Your task to perform on an android device: turn on bluetooth scan Image 0: 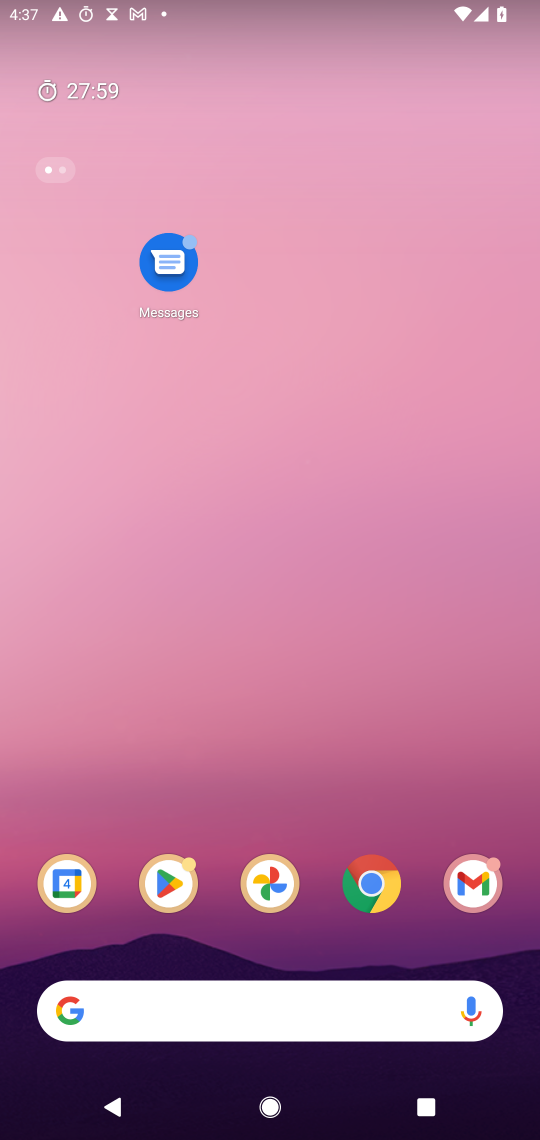
Step 0: drag from (317, 953) to (270, 84)
Your task to perform on an android device: turn on bluetooth scan Image 1: 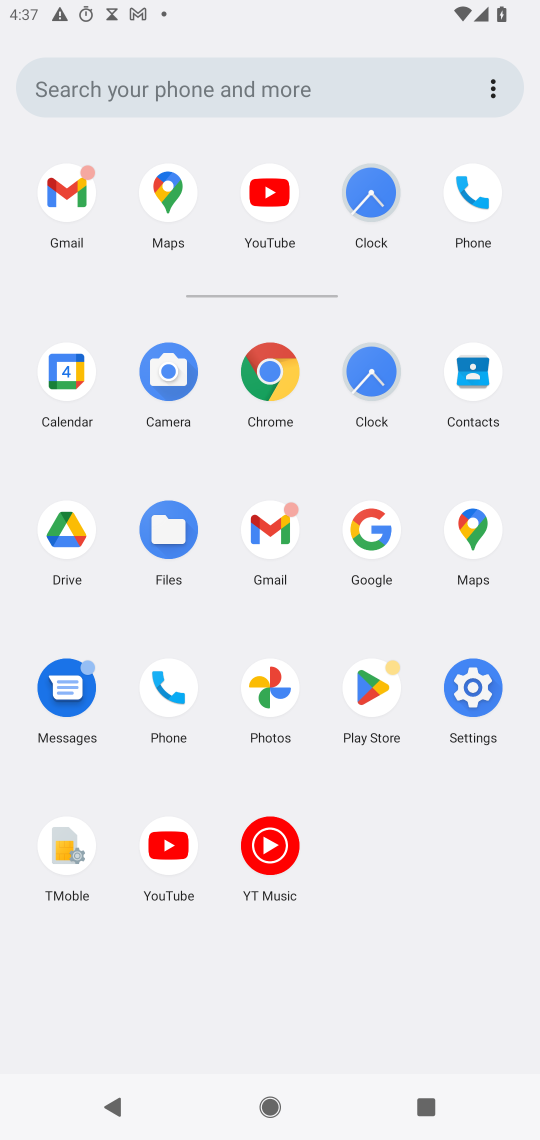
Step 1: click (476, 677)
Your task to perform on an android device: turn on bluetooth scan Image 2: 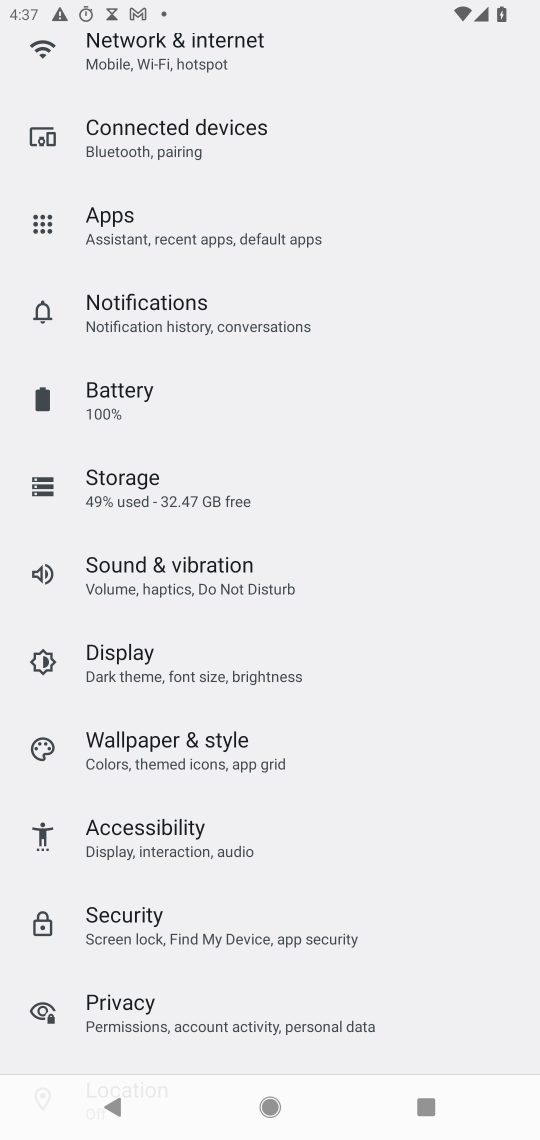
Step 2: drag from (263, 201) to (314, 719)
Your task to perform on an android device: turn on bluetooth scan Image 3: 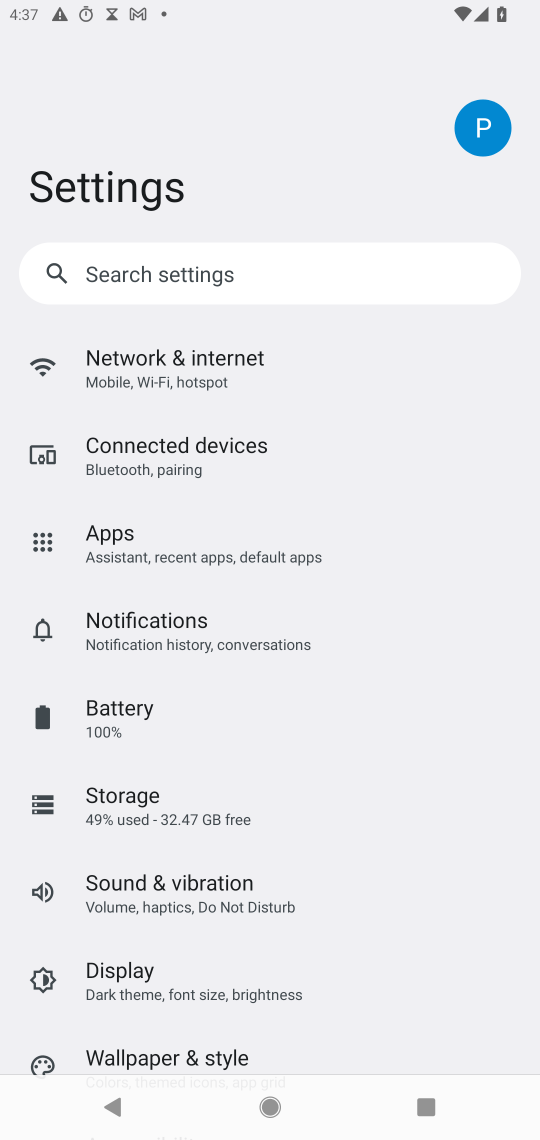
Step 3: drag from (205, 1020) to (200, 544)
Your task to perform on an android device: turn on bluetooth scan Image 4: 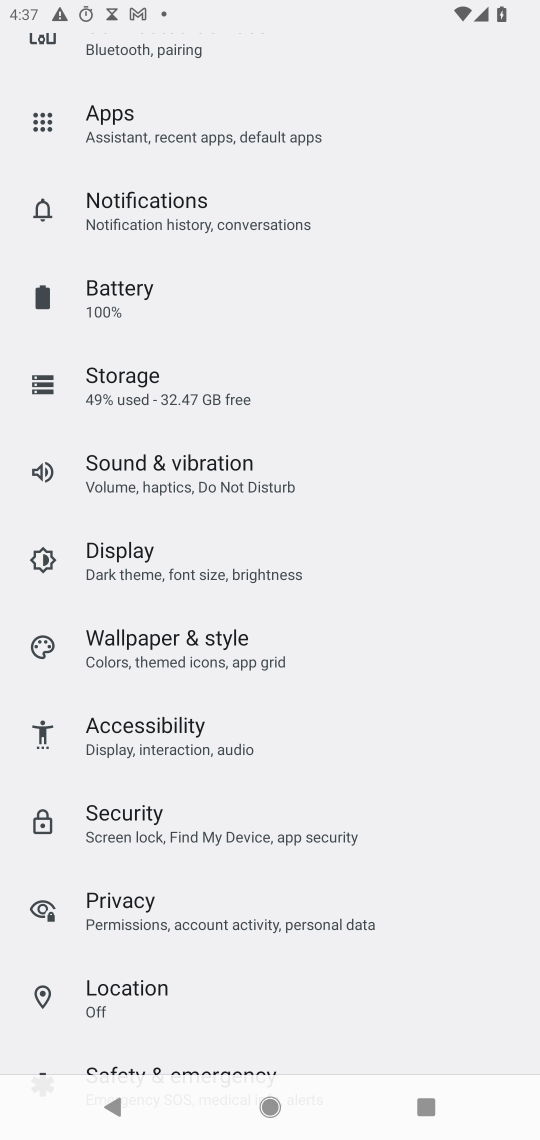
Step 4: click (128, 984)
Your task to perform on an android device: turn on bluetooth scan Image 5: 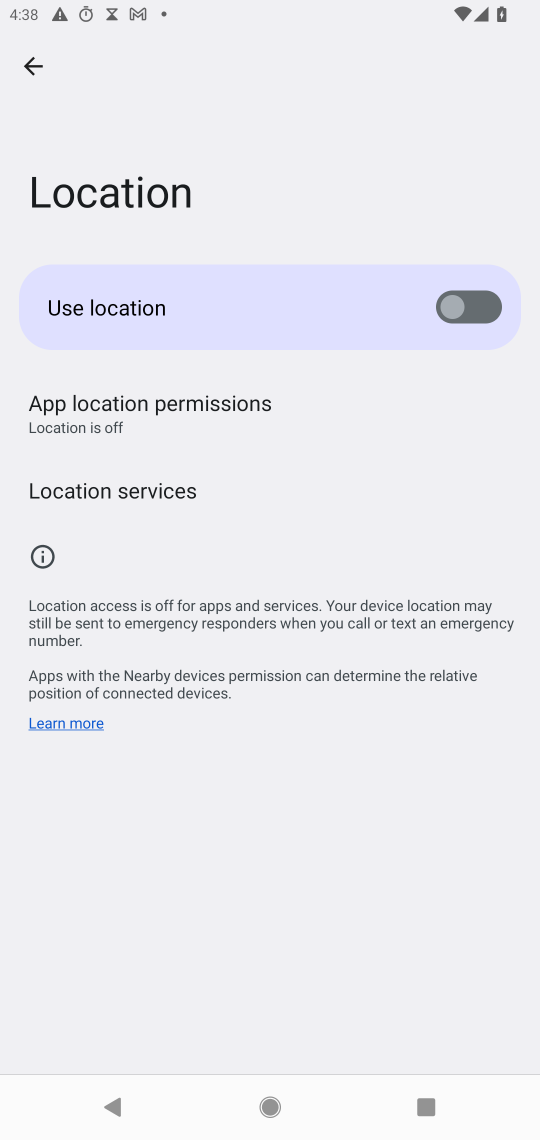
Step 5: click (121, 487)
Your task to perform on an android device: turn on bluetooth scan Image 6: 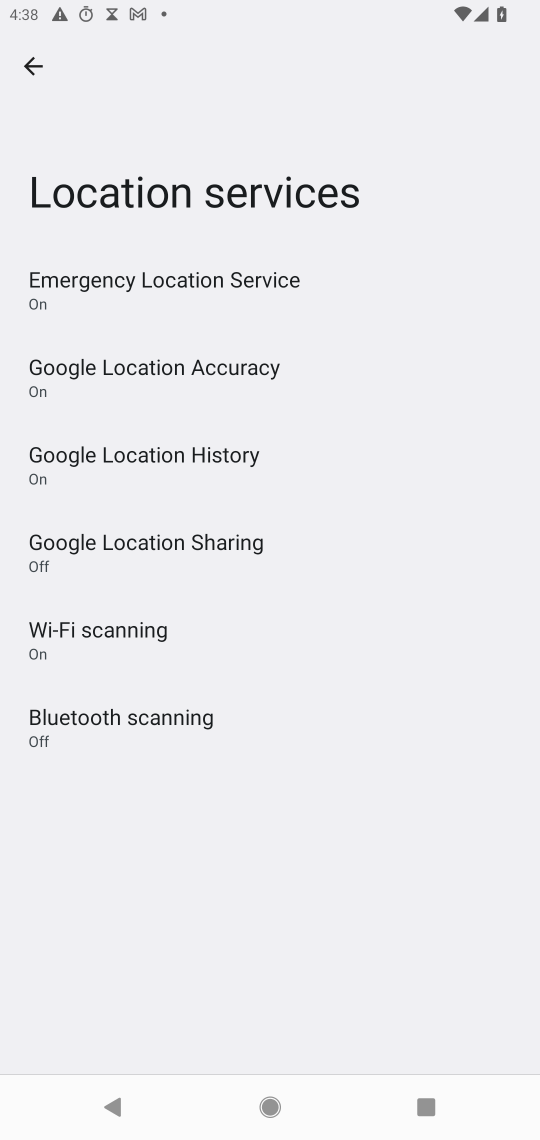
Step 6: click (114, 719)
Your task to perform on an android device: turn on bluetooth scan Image 7: 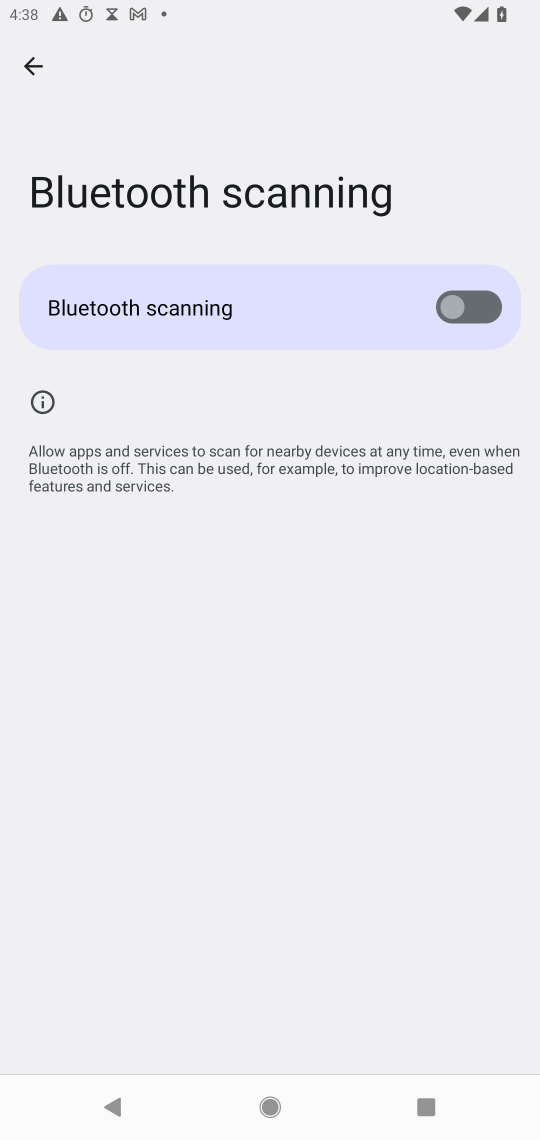
Step 7: click (473, 312)
Your task to perform on an android device: turn on bluetooth scan Image 8: 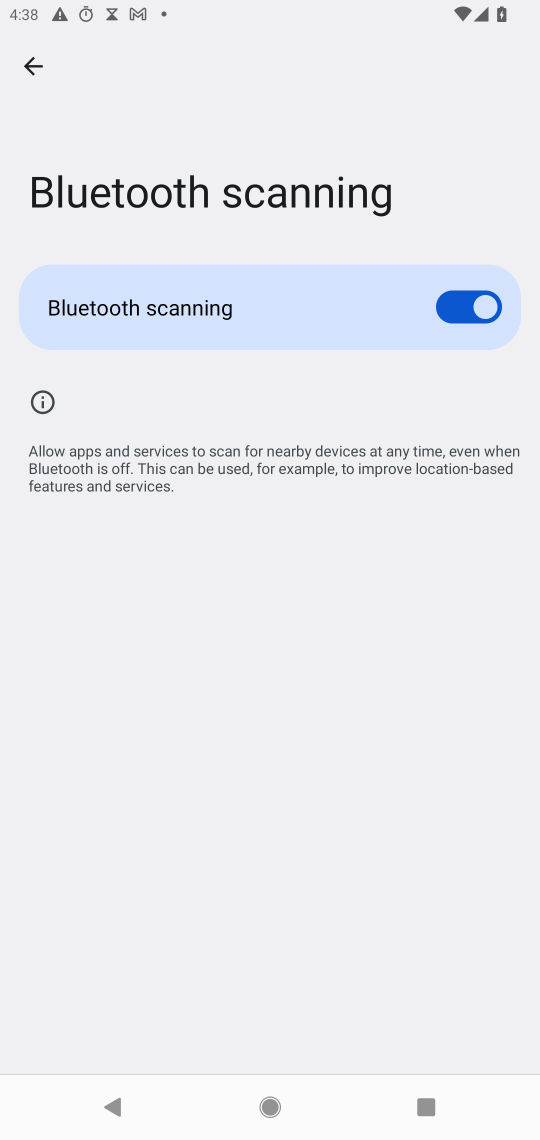
Step 8: task complete